Your task to perform on an android device: What is the recent news? Image 0: 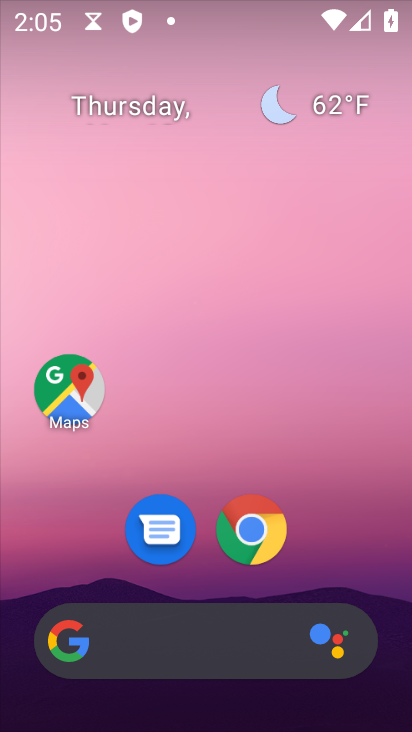
Step 0: drag from (315, 529) to (185, 62)
Your task to perform on an android device: What is the recent news? Image 1: 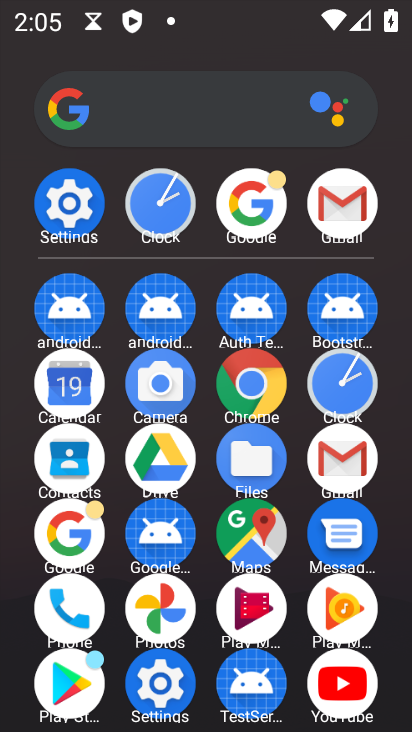
Step 1: click (247, 201)
Your task to perform on an android device: What is the recent news? Image 2: 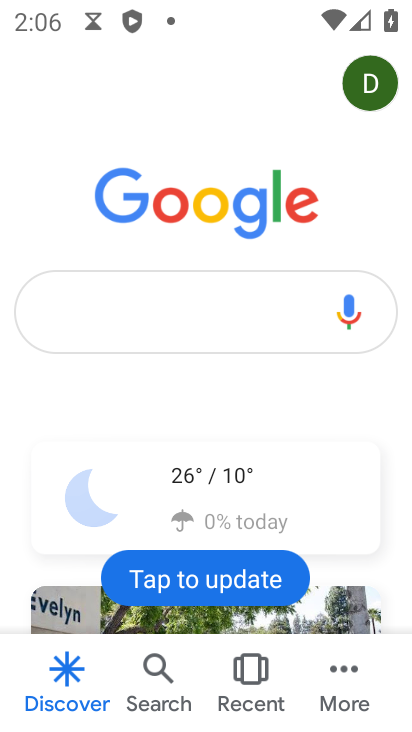
Step 2: click (158, 290)
Your task to perform on an android device: What is the recent news? Image 3: 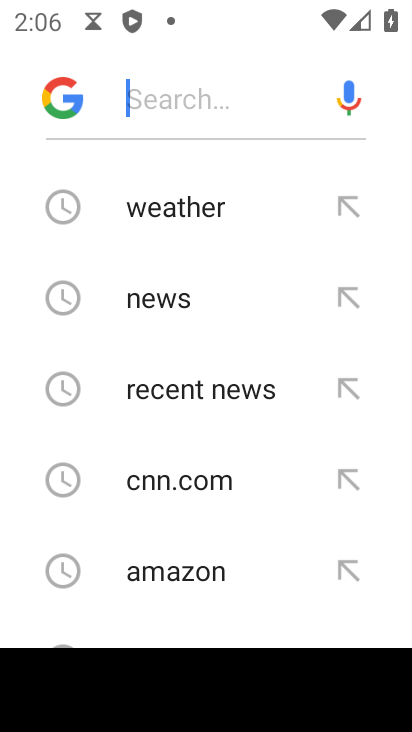
Step 3: type "recent news"
Your task to perform on an android device: What is the recent news? Image 4: 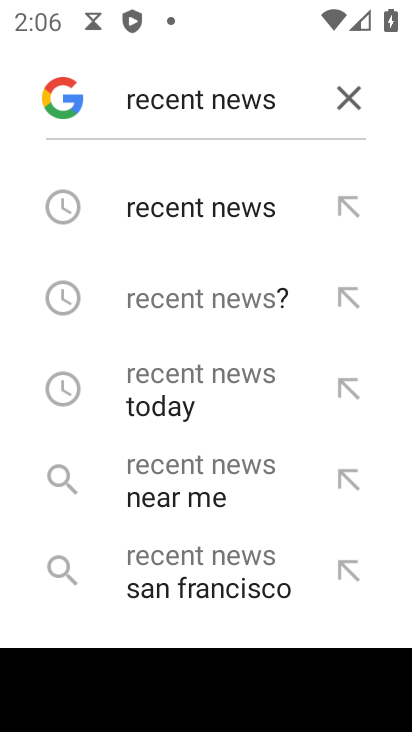
Step 4: click (175, 216)
Your task to perform on an android device: What is the recent news? Image 5: 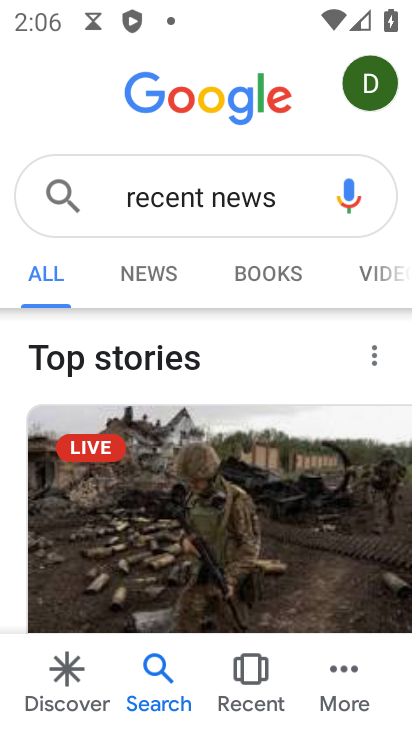
Step 5: drag from (176, 500) to (221, 295)
Your task to perform on an android device: What is the recent news? Image 6: 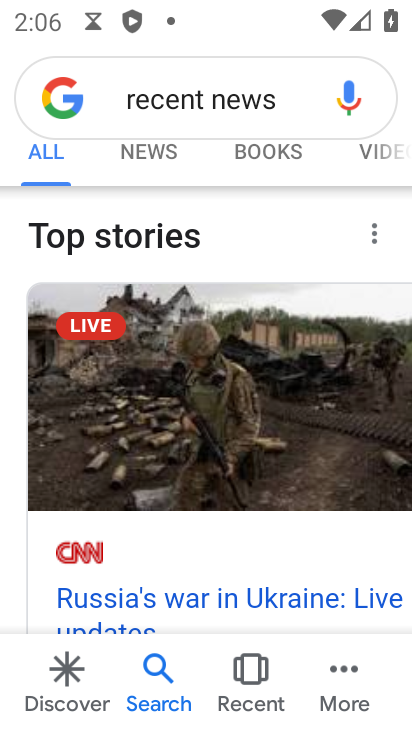
Step 6: drag from (185, 512) to (209, 344)
Your task to perform on an android device: What is the recent news? Image 7: 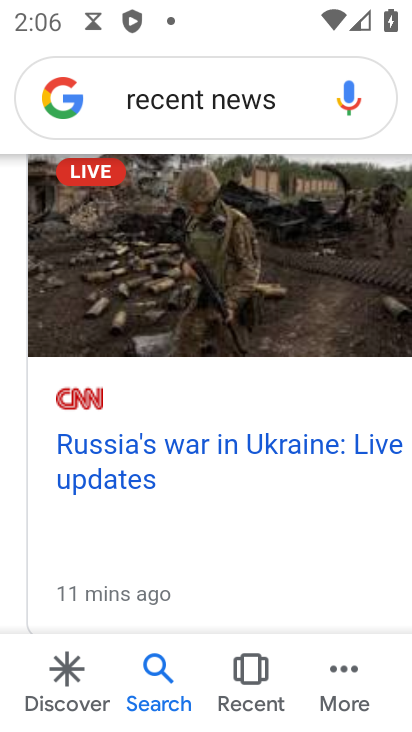
Step 7: click (231, 426)
Your task to perform on an android device: What is the recent news? Image 8: 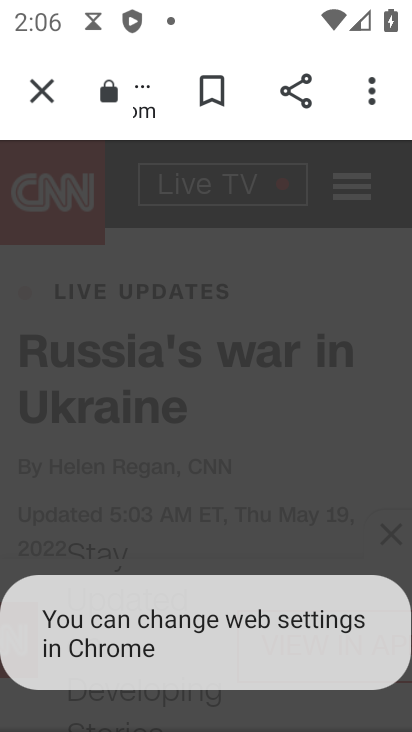
Step 8: task complete